Your task to perform on an android device: Go to notification settings Image 0: 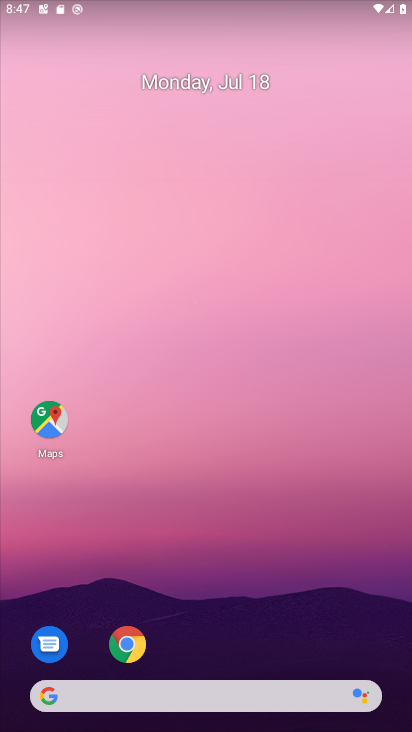
Step 0: drag from (239, 649) to (255, 169)
Your task to perform on an android device: Go to notification settings Image 1: 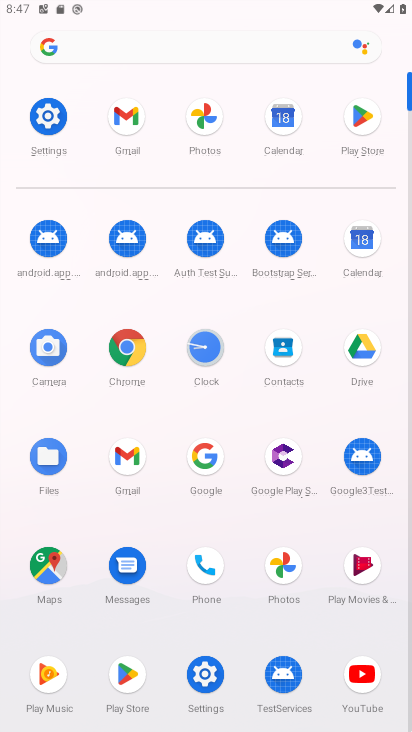
Step 1: click (214, 667)
Your task to perform on an android device: Go to notification settings Image 2: 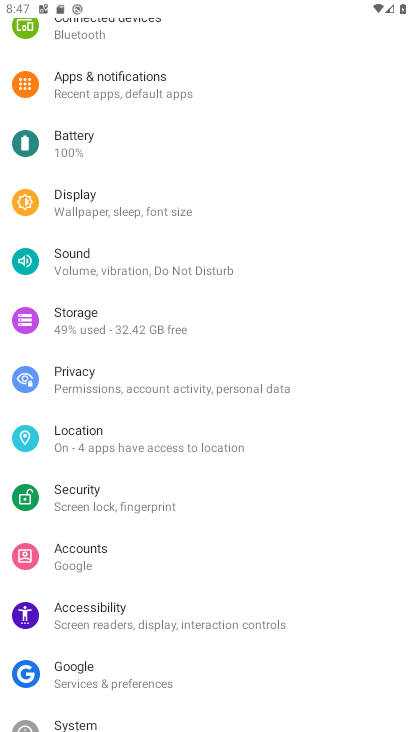
Step 2: click (202, 103)
Your task to perform on an android device: Go to notification settings Image 3: 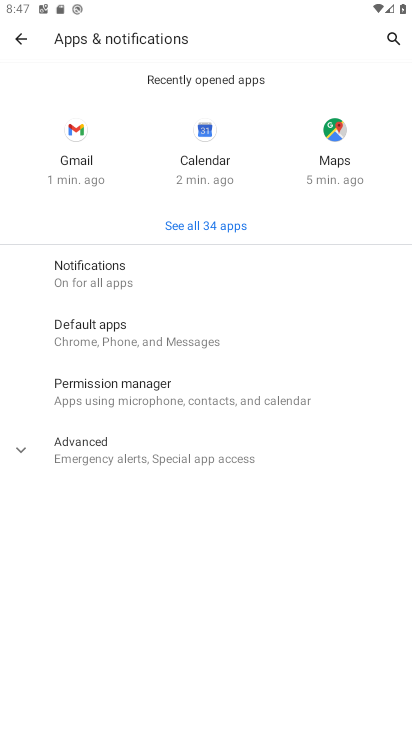
Step 3: task complete